Your task to perform on an android device: change the upload size in google photos Image 0: 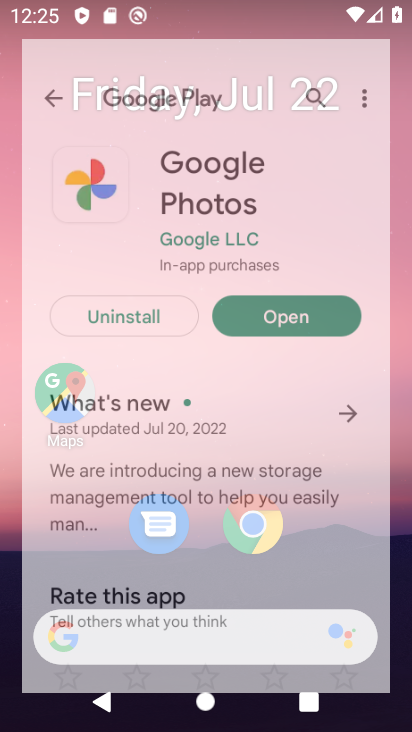
Step 0: press home button
Your task to perform on an android device: change the upload size in google photos Image 1: 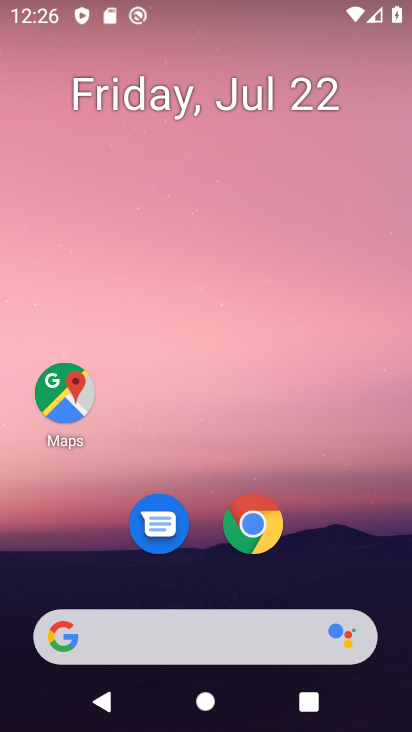
Step 1: drag from (214, 630) to (316, 71)
Your task to perform on an android device: change the upload size in google photos Image 2: 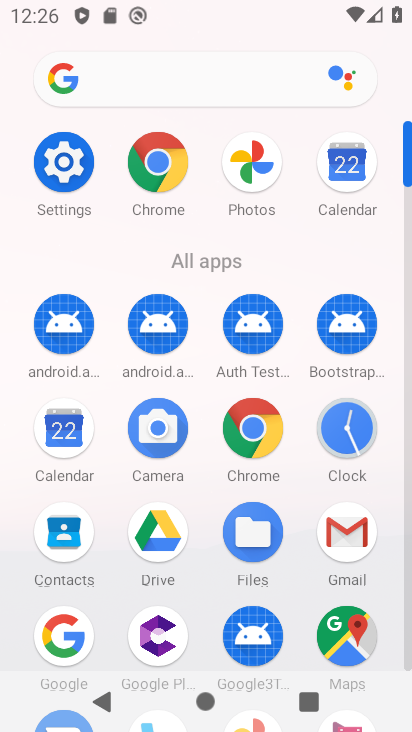
Step 2: click (255, 170)
Your task to perform on an android device: change the upload size in google photos Image 3: 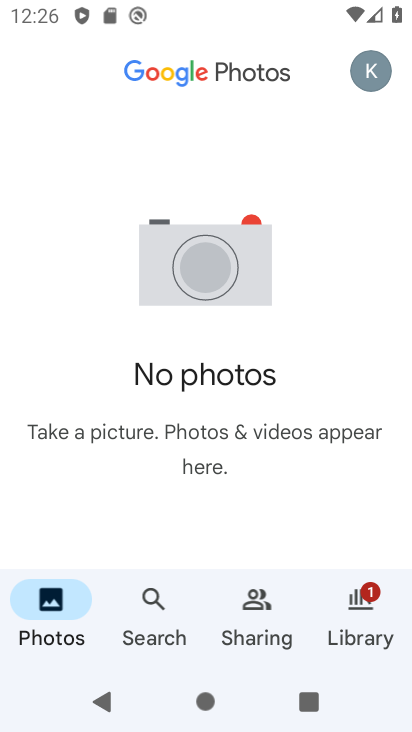
Step 3: click (377, 69)
Your task to perform on an android device: change the upload size in google photos Image 4: 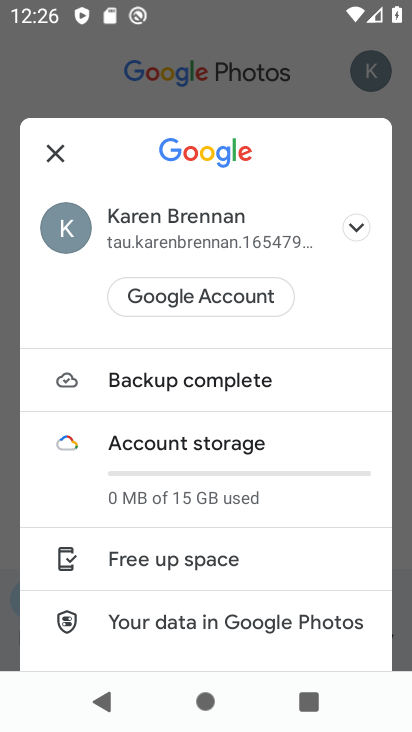
Step 4: drag from (188, 590) to (288, 163)
Your task to perform on an android device: change the upload size in google photos Image 5: 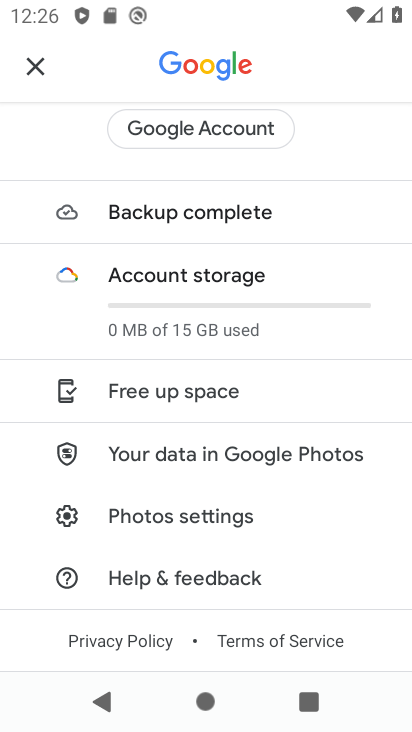
Step 5: click (204, 513)
Your task to perform on an android device: change the upload size in google photos Image 6: 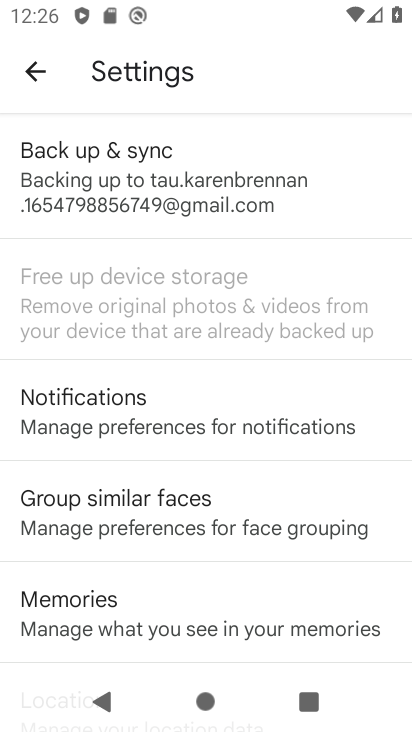
Step 6: click (238, 221)
Your task to perform on an android device: change the upload size in google photos Image 7: 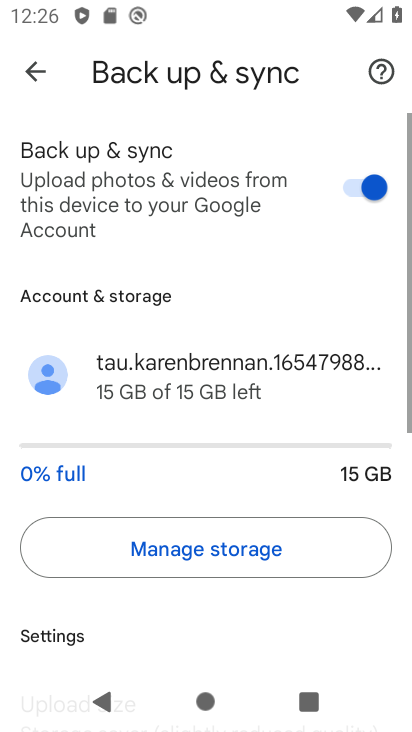
Step 7: drag from (231, 638) to (312, 122)
Your task to perform on an android device: change the upload size in google photos Image 8: 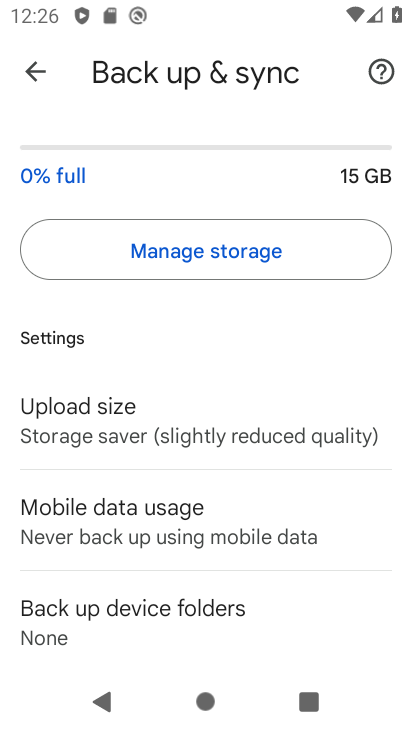
Step 8: click (149, 414)
Your task to perform on an android device: change the upload size in google photos Image 9: 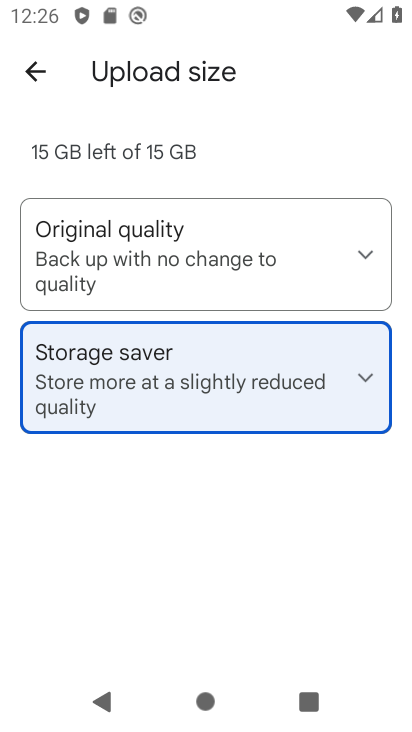
Step 9: click (359, 253)
Your task to perform on an android device: change the upload size in google photos Image 10: 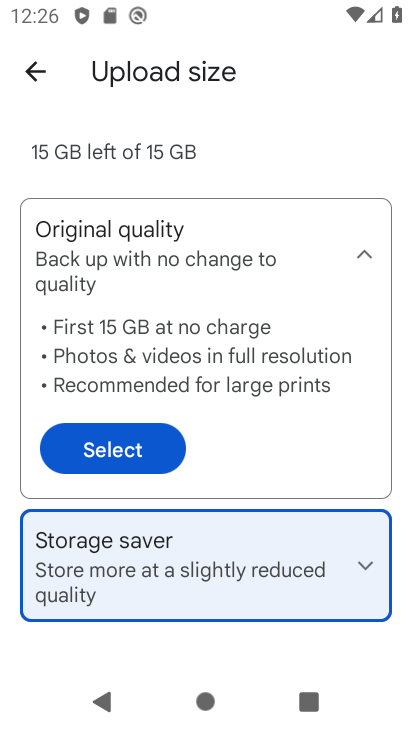
Step 10: click (124, 444)
Your task to perform on an android device: change the upload size in google photos Image 11: 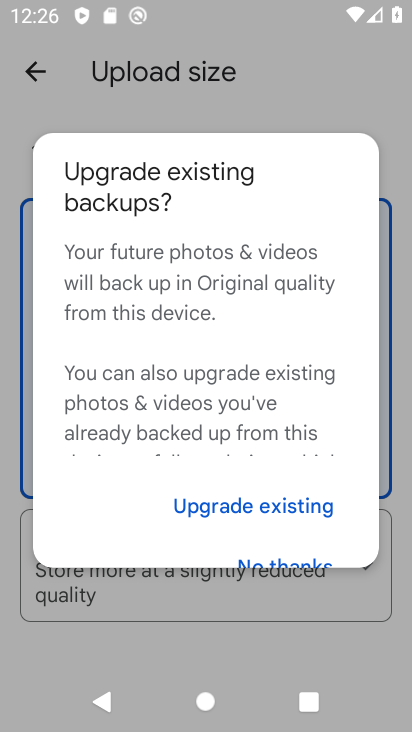
Step 11: drag from (261, 536) to (320, 165)
Your task to perform on an android device: change the upload size in google photos Image 12: 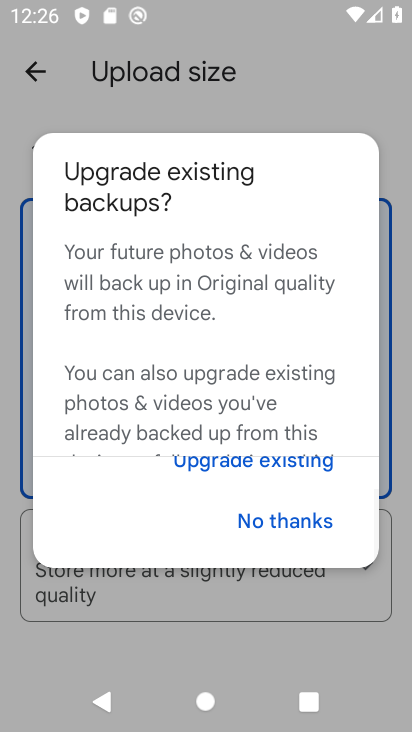
Step 12: click (275, 522)
Your task to perform on an android device: change the upload size in google photos Image 13: 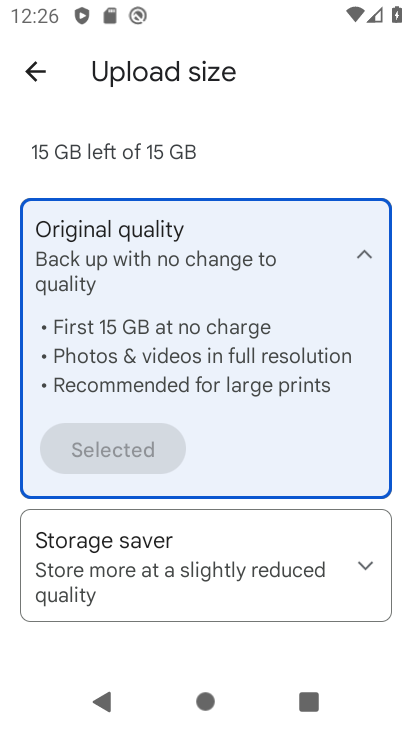
Step 13: task complete